Your task to perform on an android device: Set the phone to "Do not disturb". Image 0: 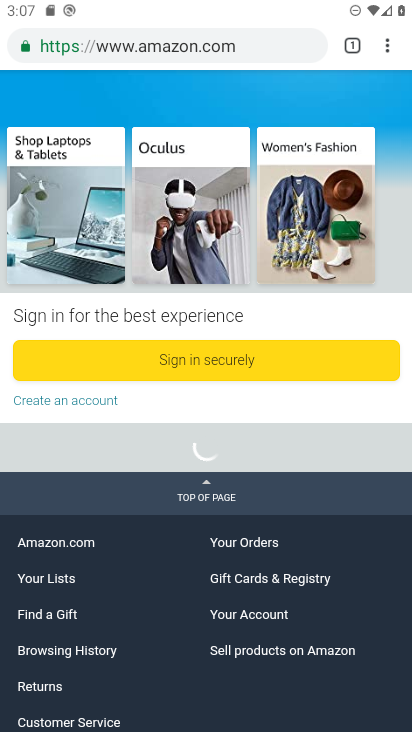
Step 0: drag from (270, 3) to (298, 641)
Your task to perform on an android device: Set the phone to "Do not disturb". Image 1: 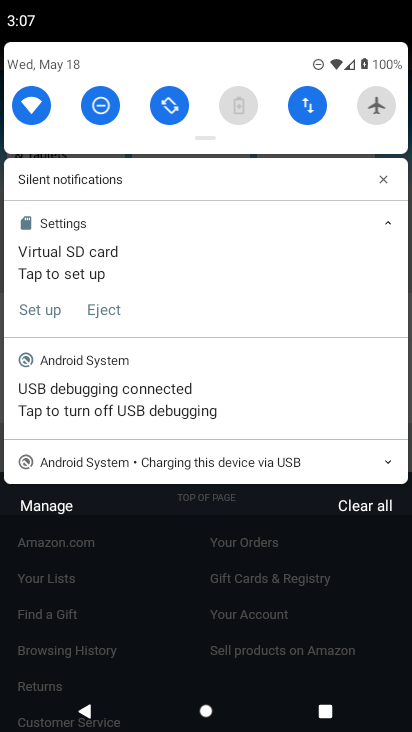
Step 1: task complete